Your task to perform on an android device: read, delete, or share a saved page in the chrome app Image 0: 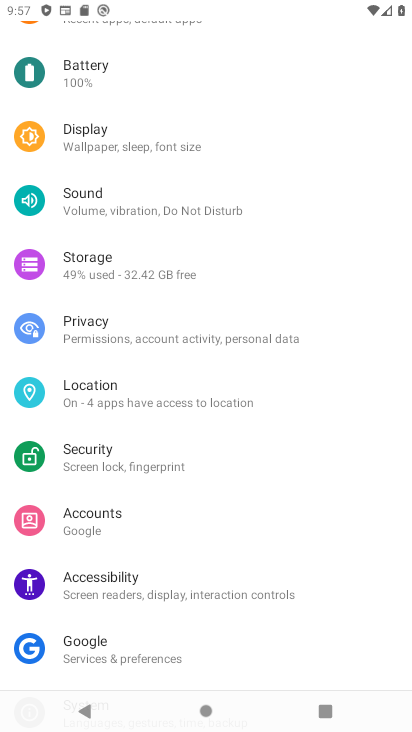
Step 0: press home button
Your task to perform on an android device: read, delete, or share a saved page in the chrome app Image 1: 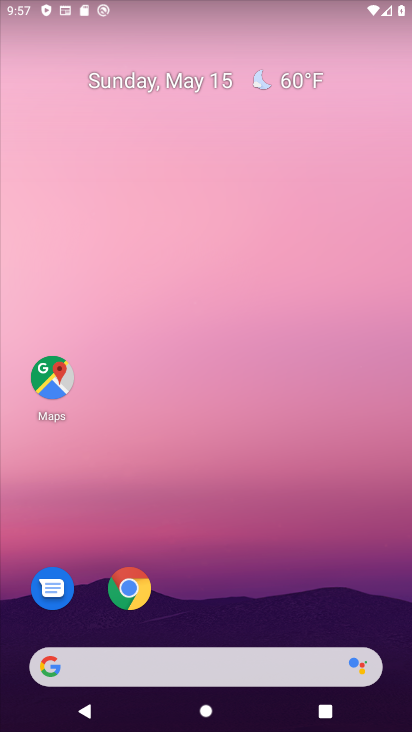
Step 1: click (138, 597)
Your task to perform on an android device: read, delete, or share a saved page in the chrome app Image 2: 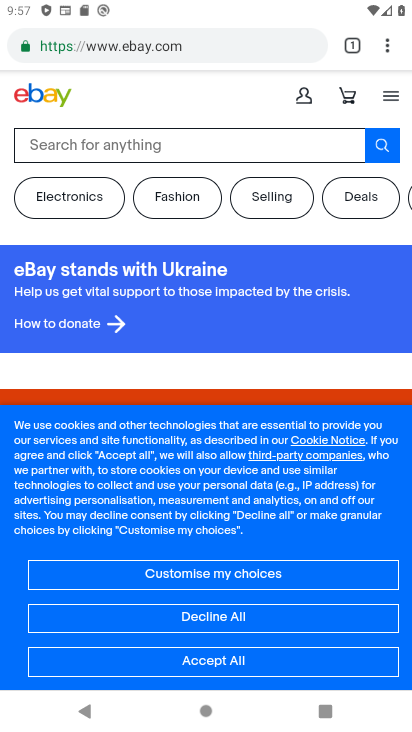
Step 2: click (385, 53)
Your task to perform on an android device: read, delete, or share a saved page in the chrome app Image 3: 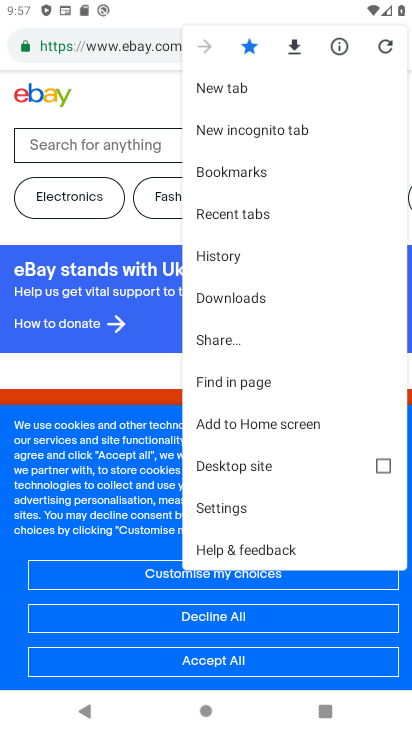
Step 3: click (262, 292)
Your task to perform on an android device: read, delete, or share a saved page in the chrome app Image 4: 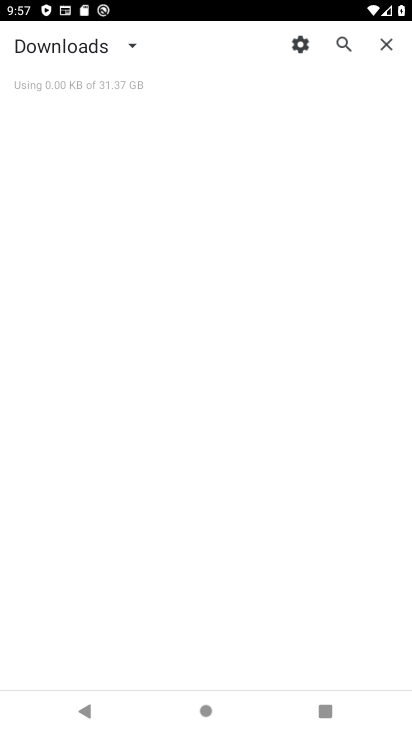
Step 4: click (116, 48)
Your task to perform on an android device: read, delete, or share a saved page in the chrome app Image 5: 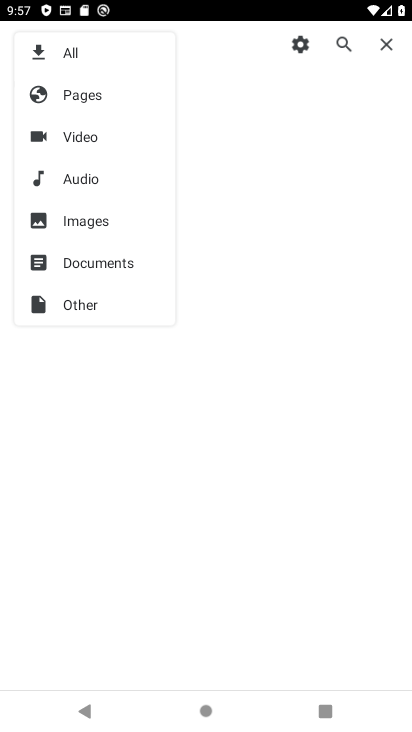
Step 5: click (88, 93)
Your task to perform on an android device: read, delete, or share a saved page in the chrome app Image 6: 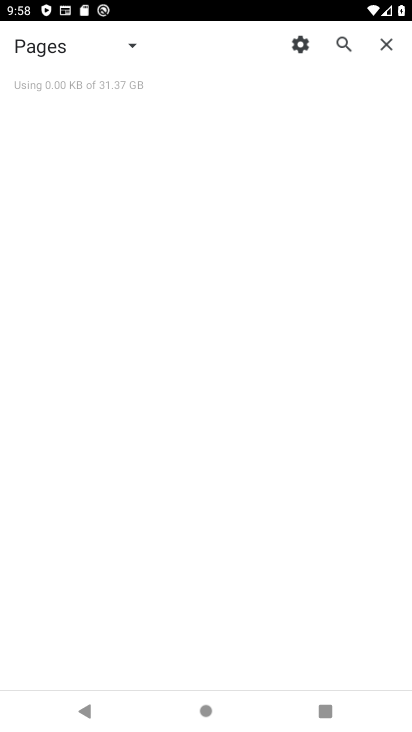
Step 6: task complete